Your task to perform on an android device: check google app version Image 0: 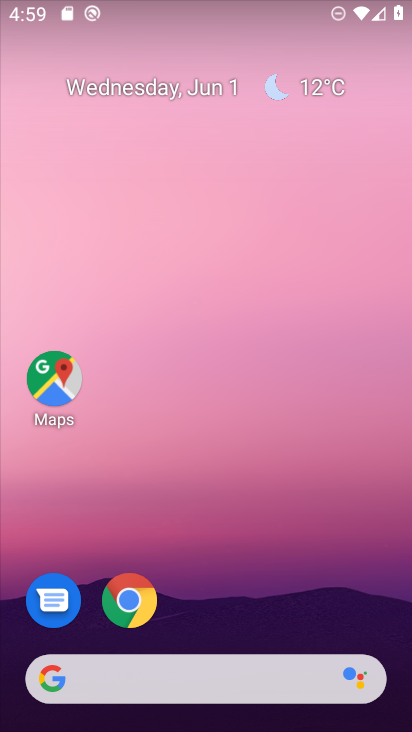
Step 0: drag from (252, 592) to (252, 23)
Your task to perform on an android device: check google app version Image 1: 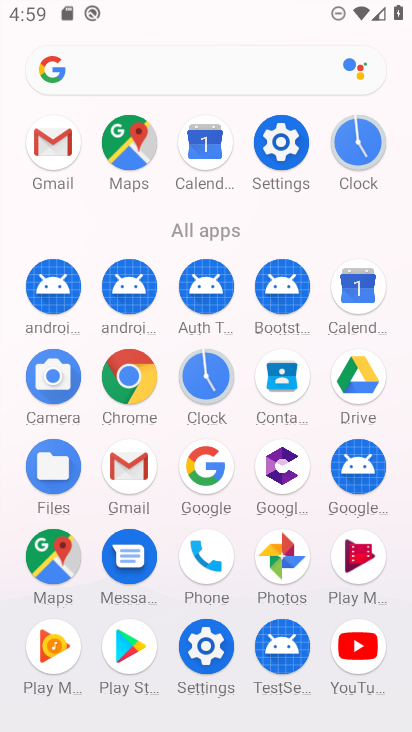
Step 1: click (202, 469)
Your task to perform on an android device: check google app version Image 2: 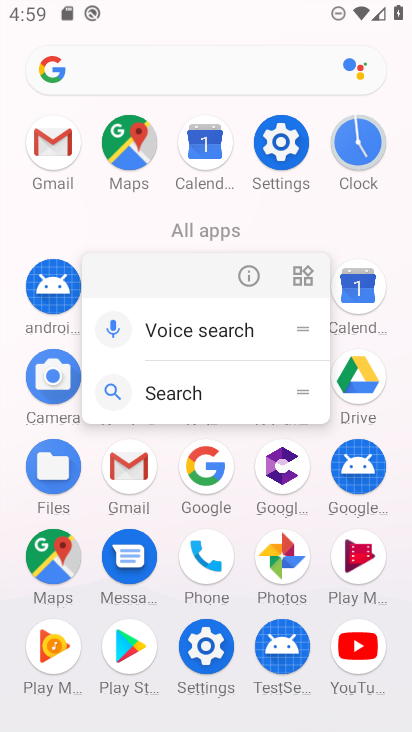
Step 2: click (247, 277)
Your task to perform on an android device: check google app version Image 3: 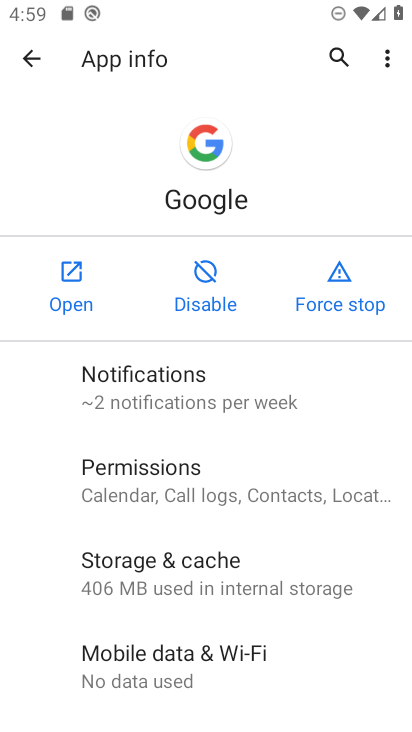
Step 3: drag from (219, 537) to (239, 418)
Your task to perform on an android device: check google app version Image 4: 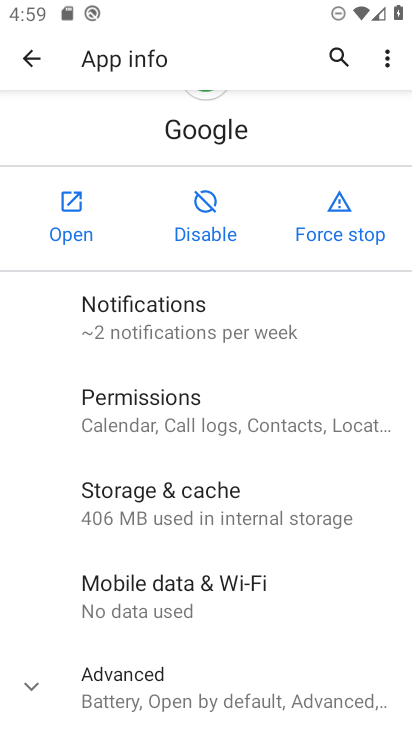
Step 4: click (190, 695)
Your task to perform on an android device: check google app version Image 5: 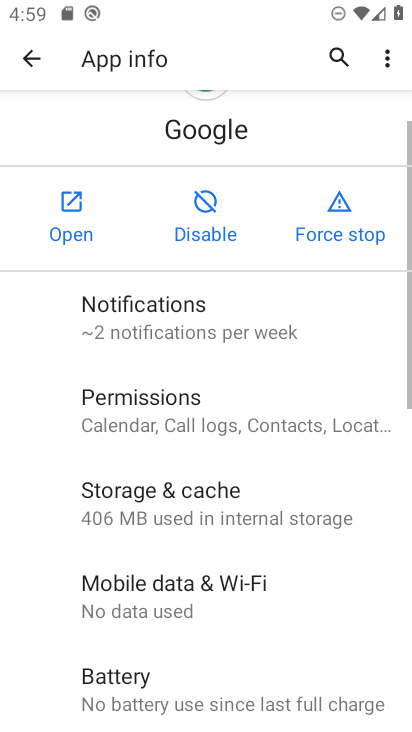
Step 5: task complete